Your task to perform on an android device: Go to wifi settings Image 0: 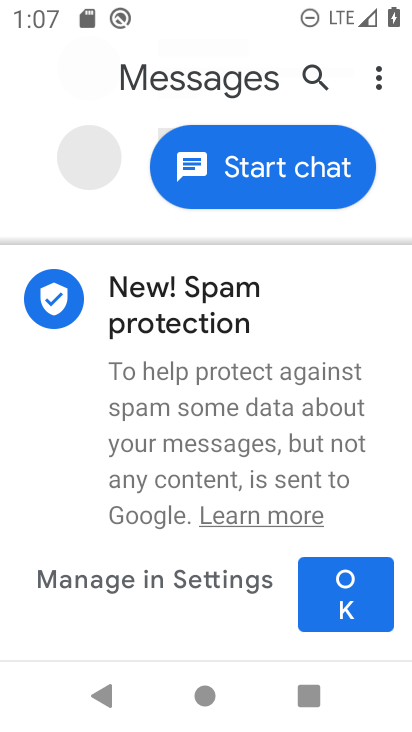
Step 0: press home button
Your task to perform on an android device: Go to wifi settings Image 1: 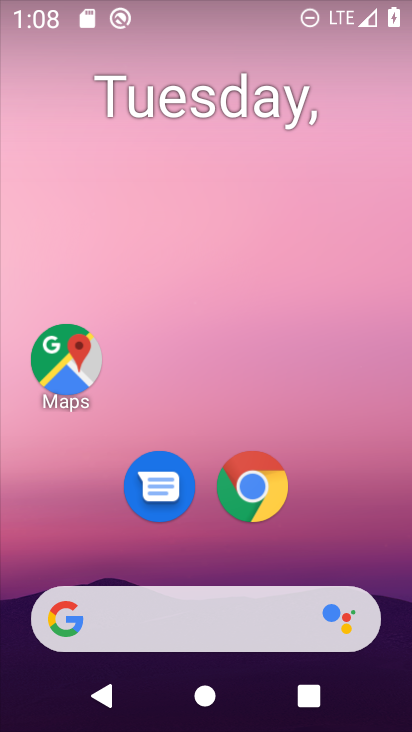
Step 1: drag from (187, 64) to (178, 480)
Your task to perform on an android device: Go to wifi settings Image 2: 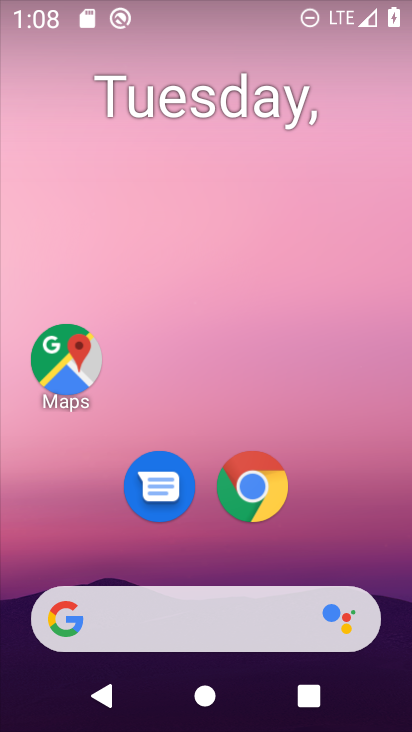
Step 2: drag from (163, 0) to (127, 420)
Your task to perform on an android device: Go to wifi settings Image 3: 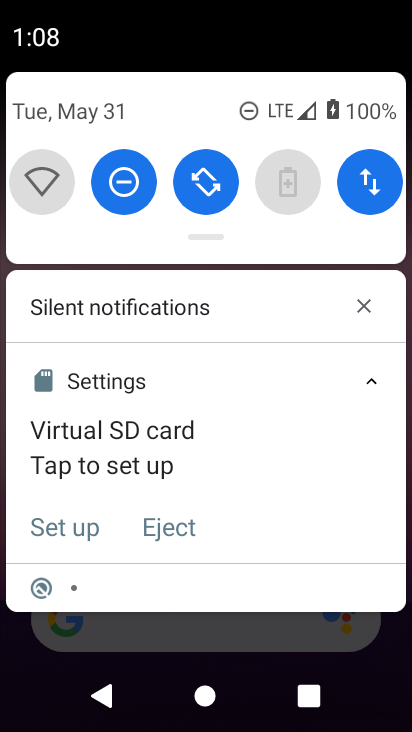
Step 3: click (45, 197)
Your task to perform on an android device: Go to wifi settings Image 4: 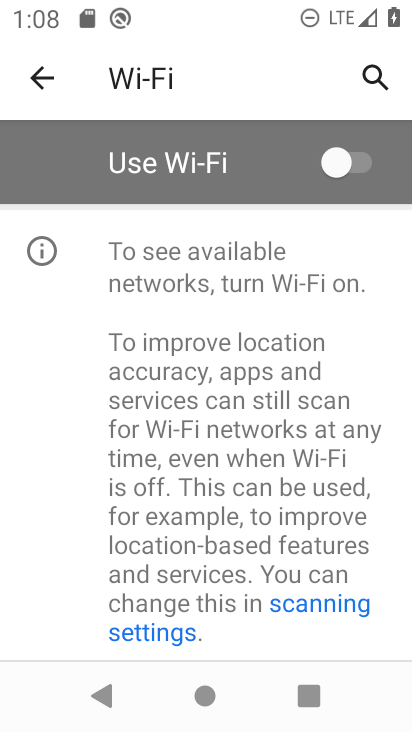
Step 4: task complete